Your task to perform on an android device: move a message to another label in the gmail app Image 0: 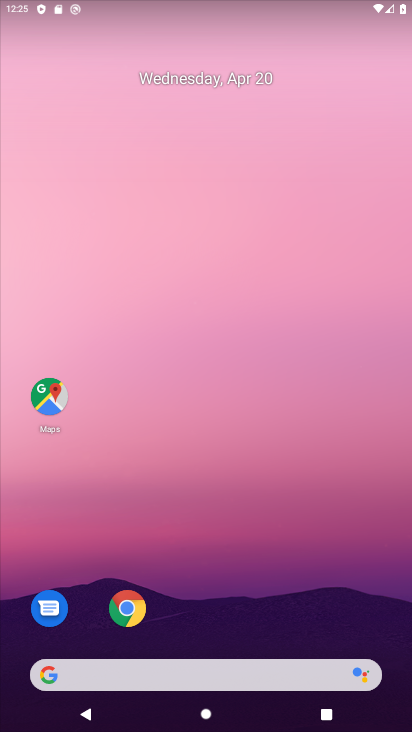
Step 0: drag from (255, 623) to (183, 188)
Your task to perform on an android device: move a message to another label in the gmail app Image 1: 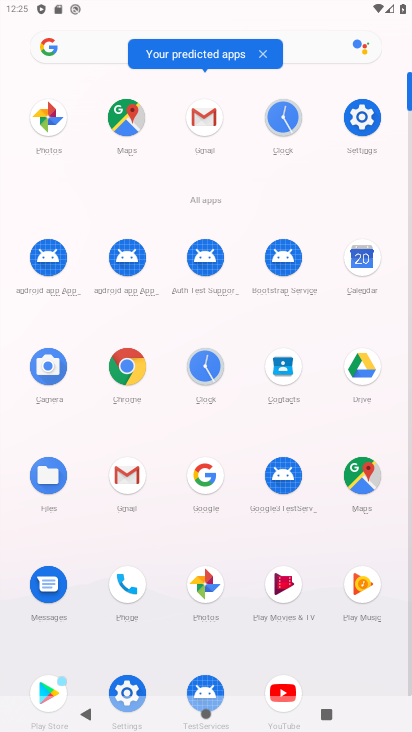
Step 1: click (211, 127)
Your task to perform on an android device: move a message to another label in the gmail app Image 2: 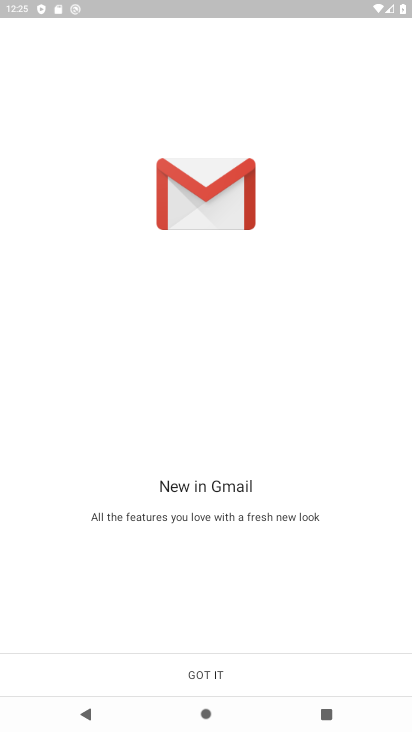
Step 2: click (195, 678)
Your task to perform on an android device: move a message to another label in the gmail app Image 3: 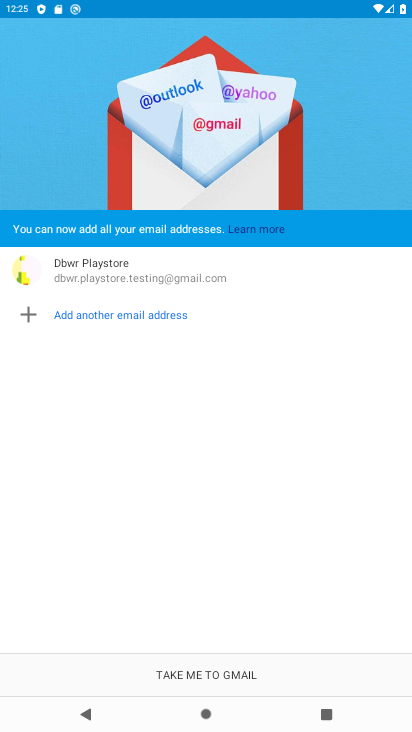
Step 3: click (195, 678)
Your task to perform on an android device: move a message to another label in the gmail app Image 4: 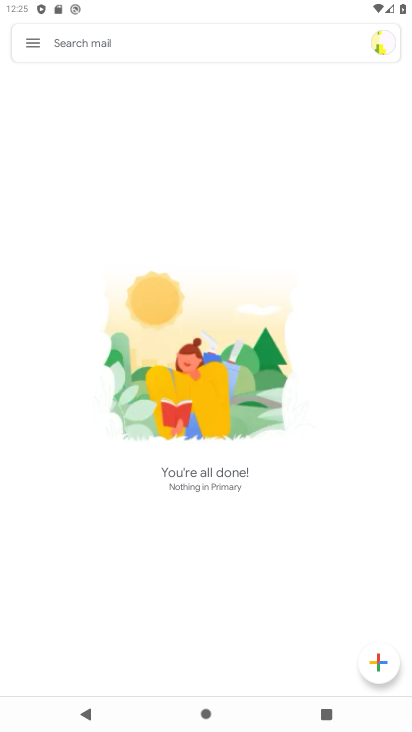
Step 4: task complete